Your task to perform on an android device: When is my next meeting? Image 0: 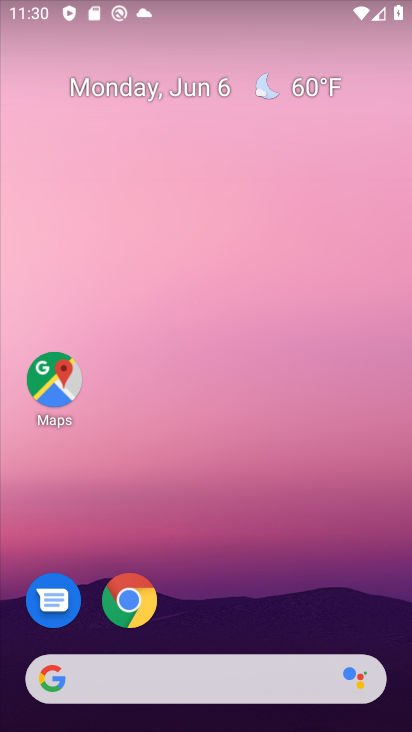
Step 0: drag from (220, 727) to (210, 81)
Your task to perform on an android device: When is my next meeting? Image 1: 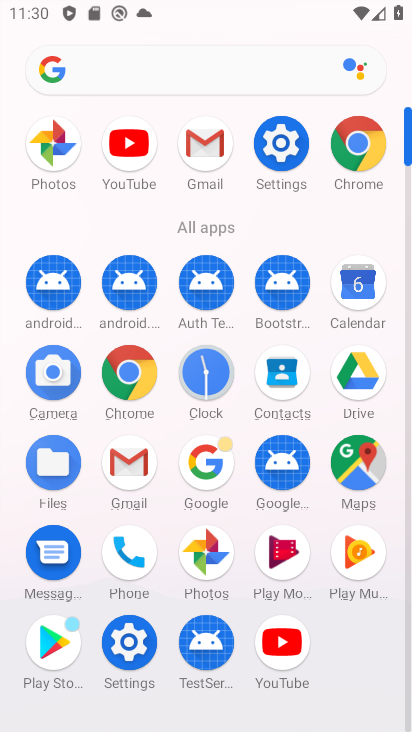
Step 1: click (357, 288)
Your task to perform on an android device: When is my next meeting? Image 2: 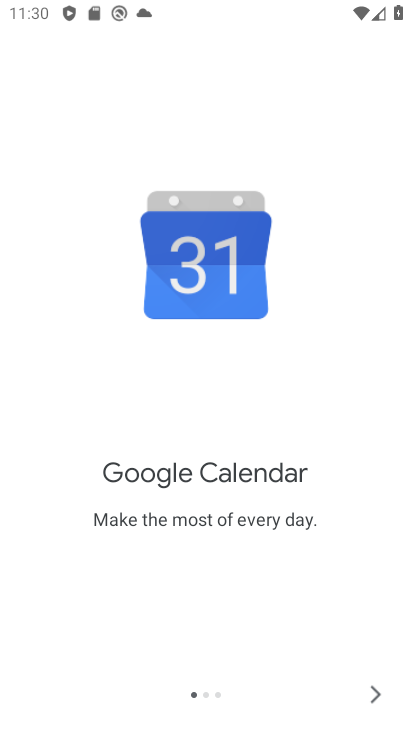
Step 2: click (380, 685)
Your task to perform on an android device: When is my next meeting? Image 3: 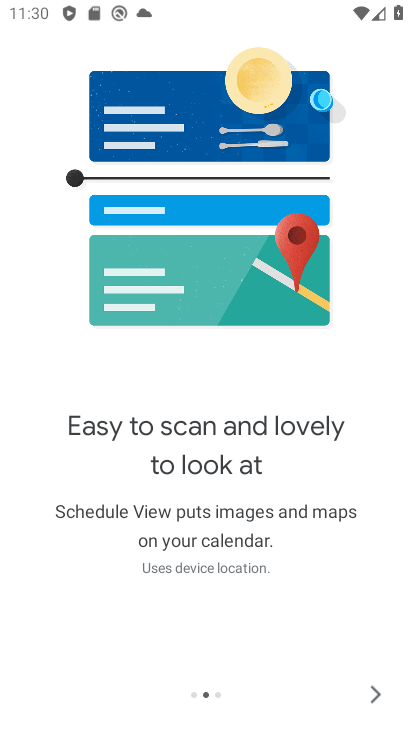
Step 3: click (380, 685)
Your task to perform on an android device: When is my next meeting? Image 4: 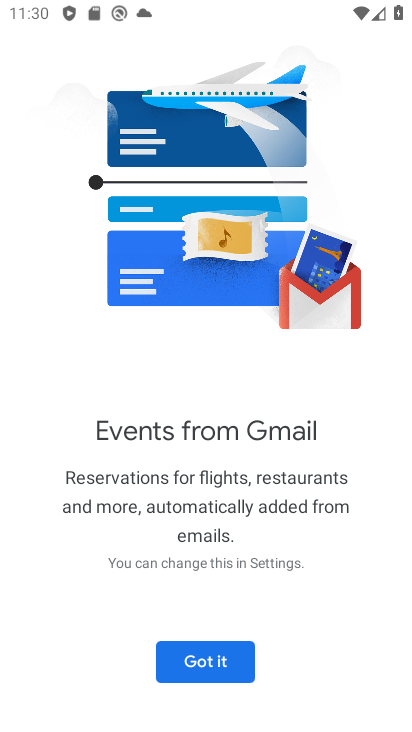
Step 4: click (199, 667)
Your task to perform on an android device: When is my next meeting? Image 5: 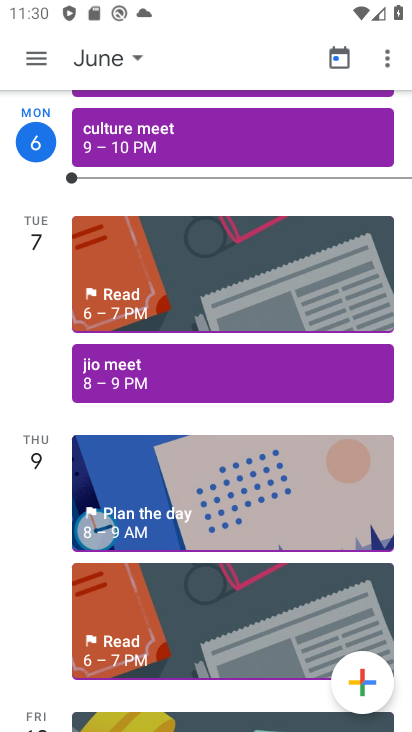
Step 5: click (172, 370)
Your task to perform on an android device: When is my next meeting? Image 6: 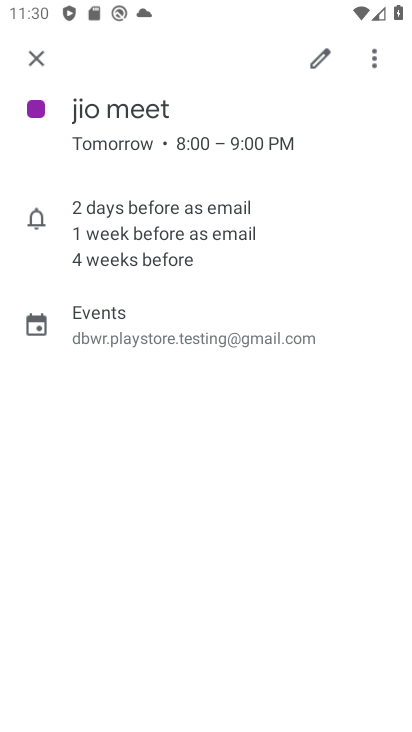
Step 6: task complete